Your task to perform on an android device: Open the map Image 0: 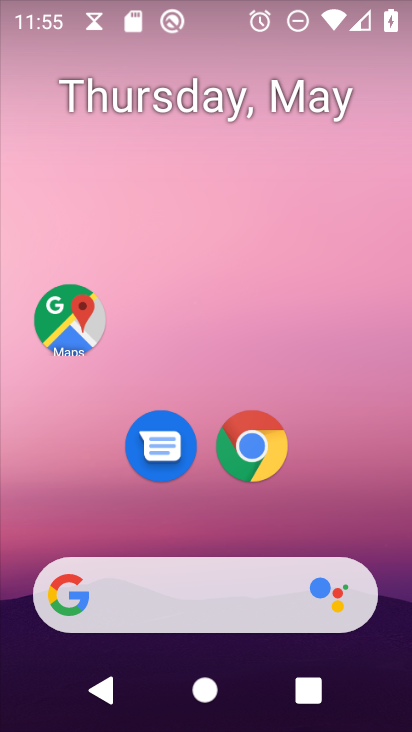
Step 0: drag from (269, 640) to (284, 294)
Your task to perform on an android device: Open the map Image 1: 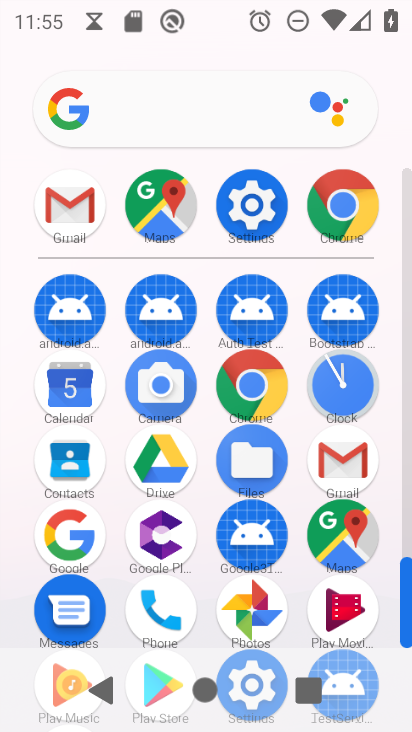
Step 1: click (170, 196)
Your task to perform on an android device: Open the map Image 2: 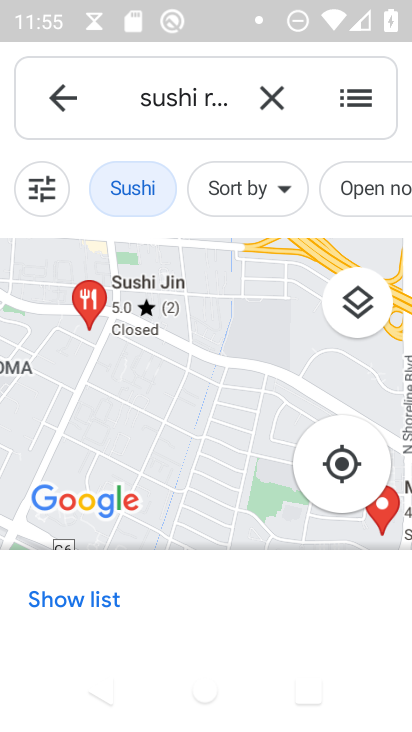
Step 2: click (72, 87)
Your task to perform on an android device: Open the map Image 3: 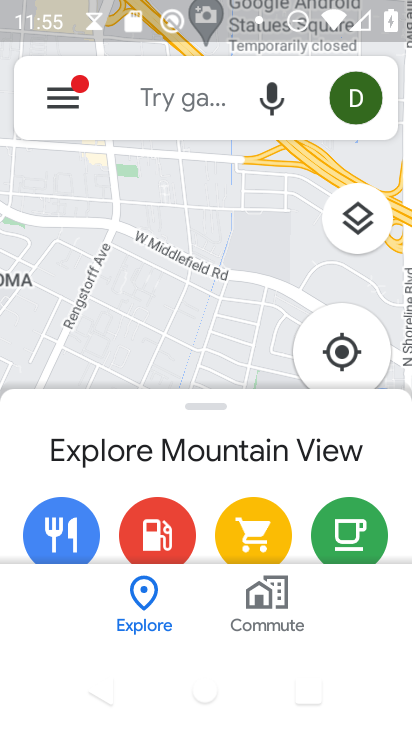
Step 3: click (333, 346)
Your task to perform on an android device: Open the map Image 4: 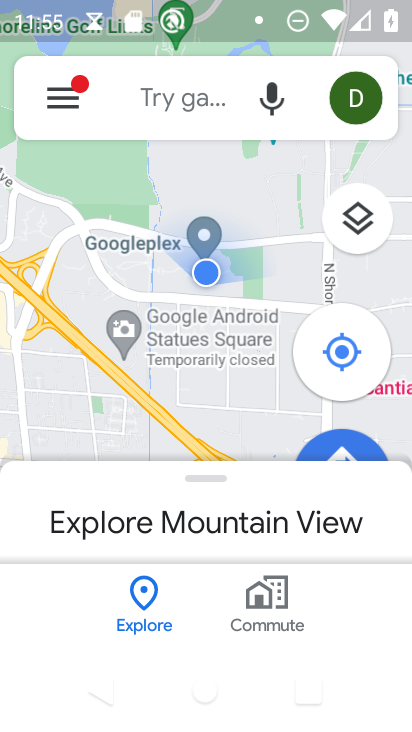
Step 4: task complete